Your task to perform on an android device: Search for razer blade on bestbuy, select the first entry, add it to the cart, then select checkout. Image 0: 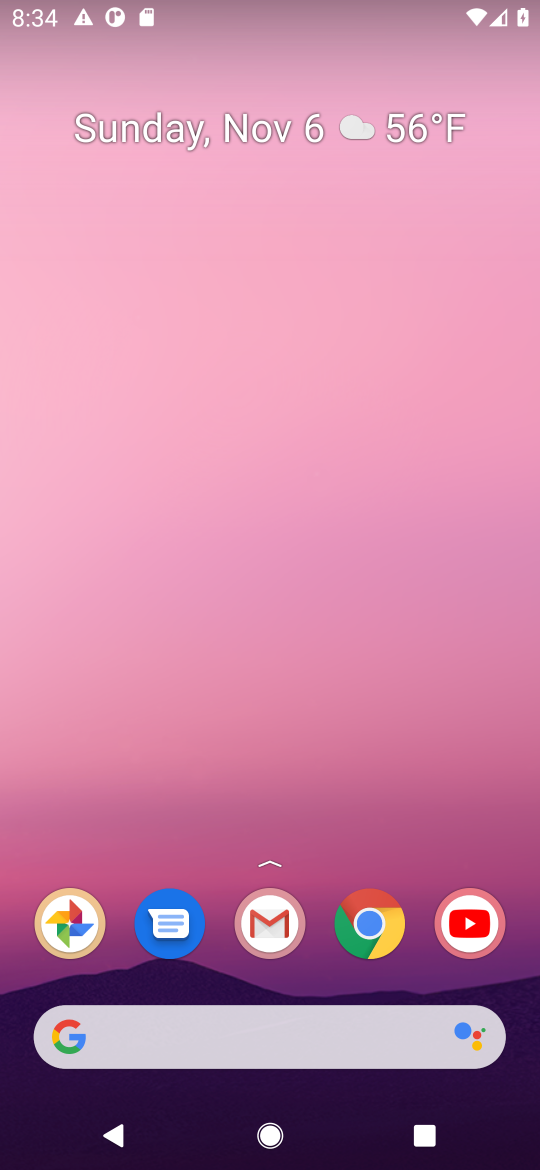
Step 0: click (363, 932)
Your task to perform on an android device: Search for razer blade on bestbuy, select the first entry, add it to the cart, then select checkout. Image 1: 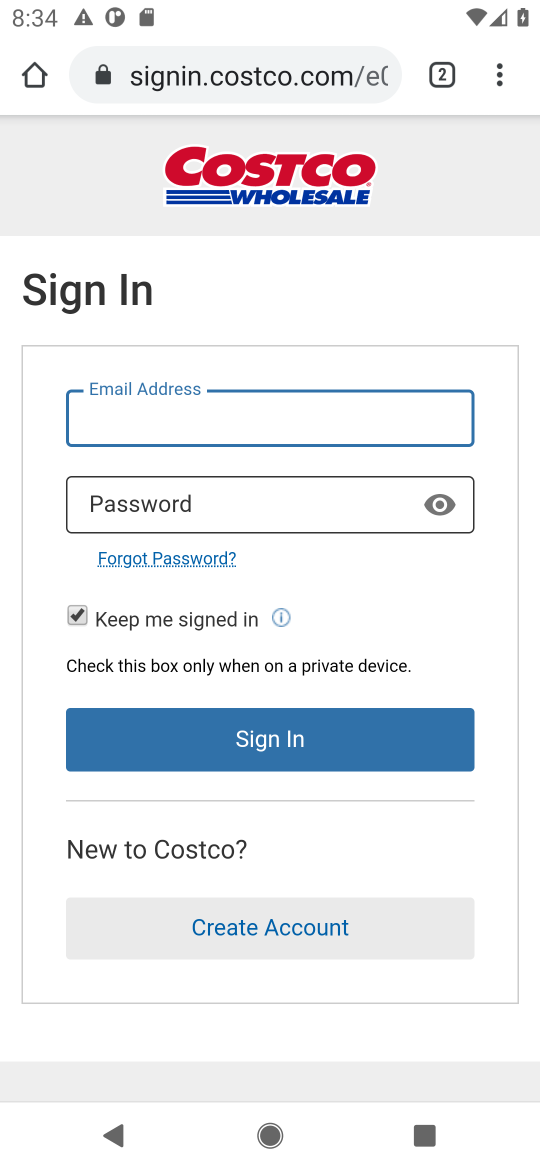
Step 1: click (222, 67)
Your task to perform on an android device: Search for razer blade on bestbuy, select the first entry, add it to the cart, then select checkout. Image 2: 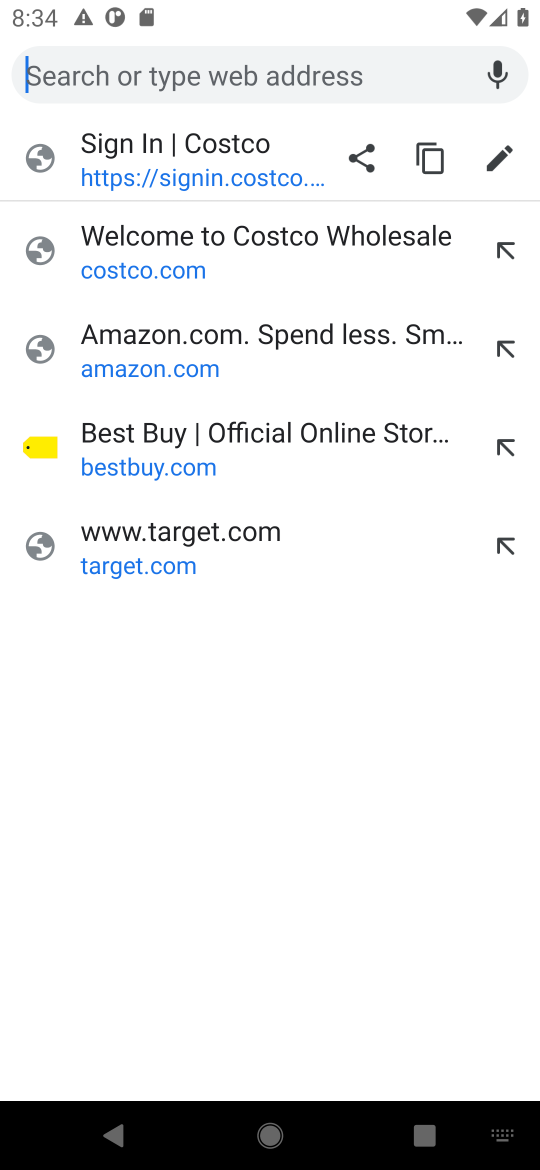
Step 2: click (157, 473)
Your task to perform on an android device: Search for razer blade on bestbuy, select the first entry, add it to the cart, then select checkout. Image 3: 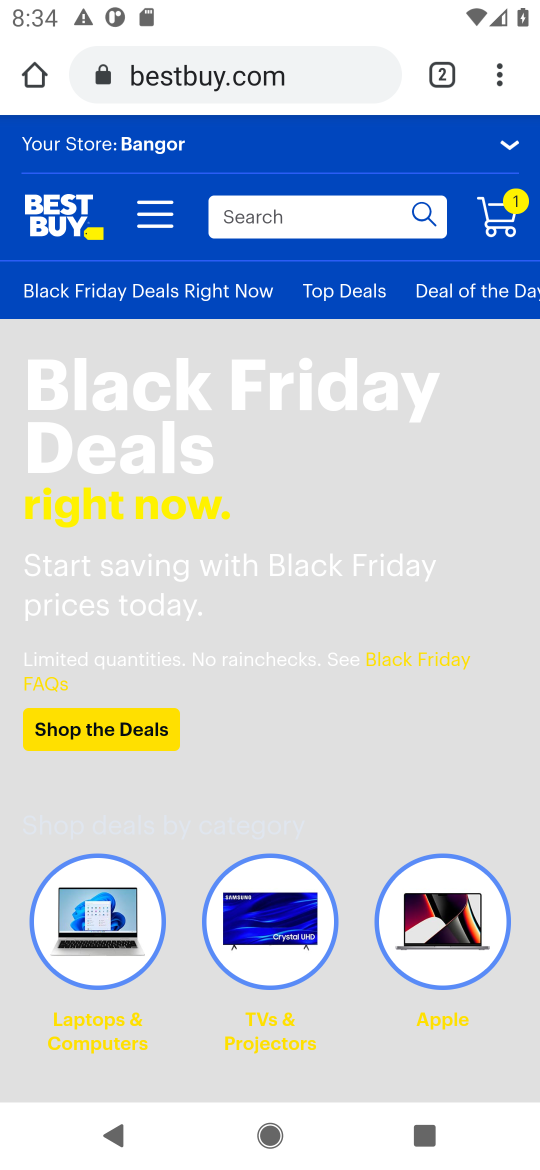
Step 3: click (255, 209)
Your task to perform on an android device: Search for razer blade on bestbuy, select the first entry, add it to the cart, then select checkout. Image 4: 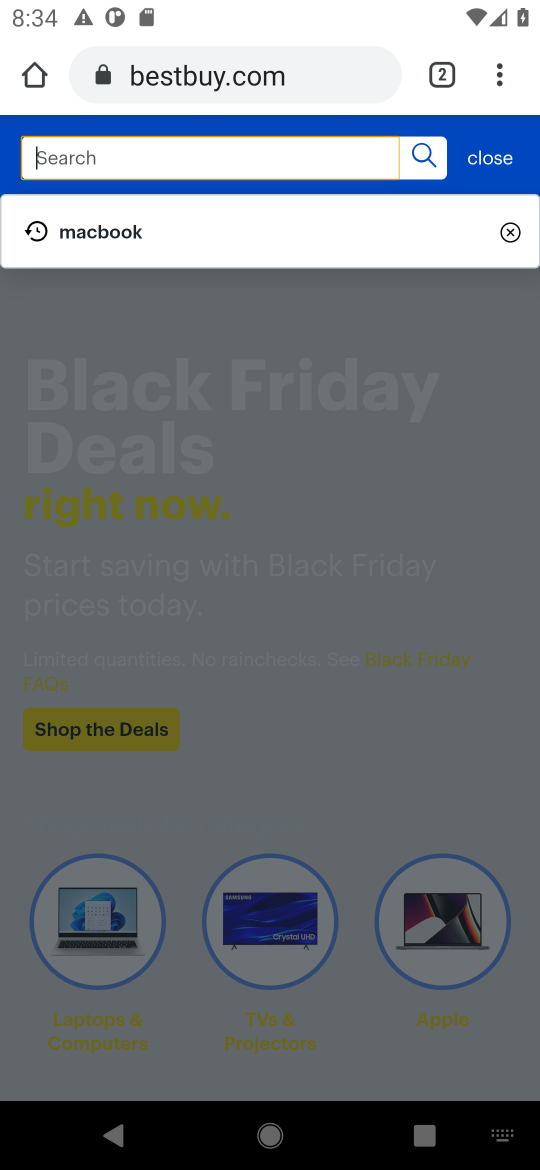
Step 4: type "razer blade"
Your task to perform on an android device: Search for razer blade on bestbuy, select the first entry, add it to the cart, then select checkout. Image 5: 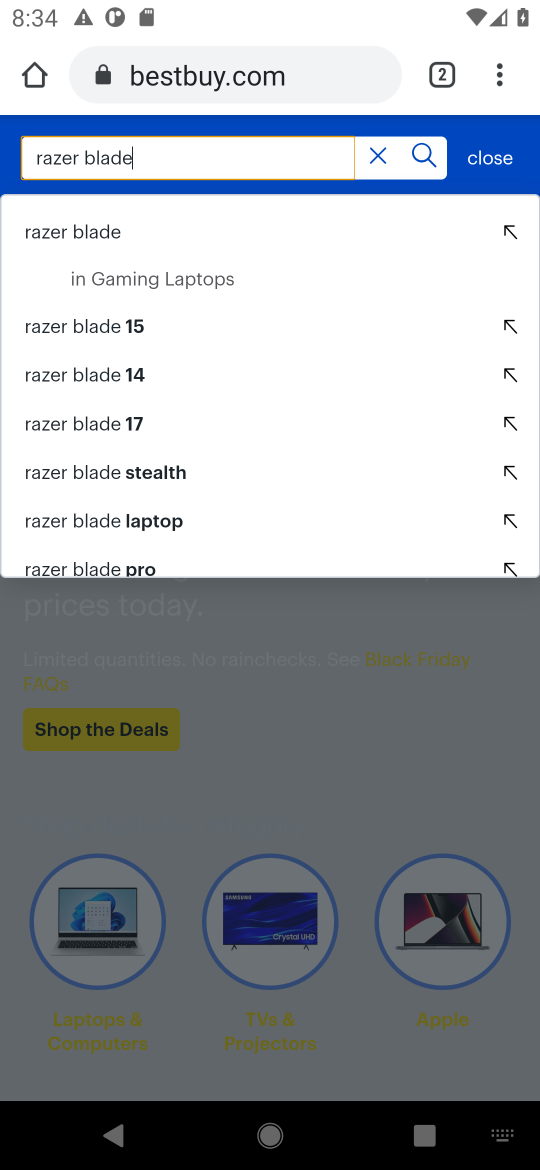
Step 5: click (99, 226)
Your task to perform on an android device: Search for razer blade on bestbuy, select the first entry, add it to the cart, then select checkout. Image 6: 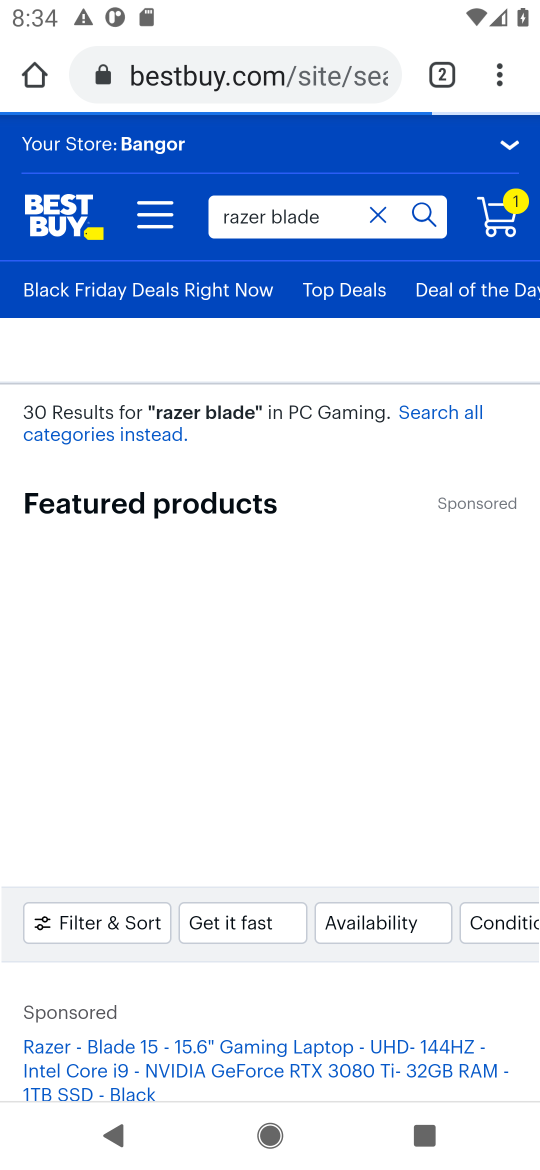
Step 6: drag from (292, 763) to (299, 365)
Your task to perform on an android device: Search for razer blade on bestbuy, select the first entry, add it to the cart, then select checkout. Image 7: 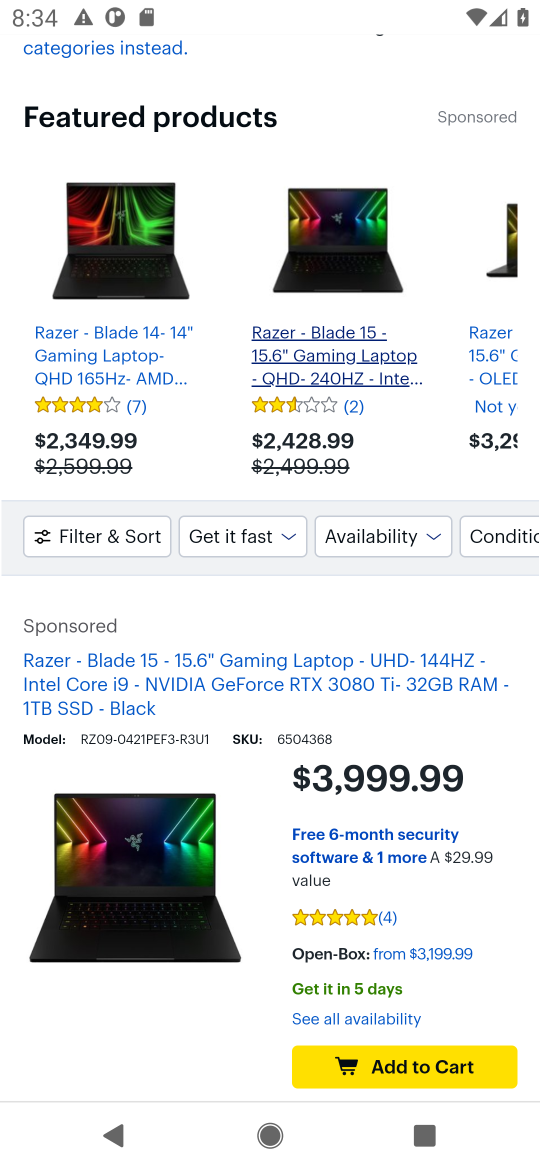
Step 7: click (412, 1065)
Your task to perform on an android device: Search for razer blade on bestbuy, select the first entry, add it to the cart, then select checkout. Image 8: 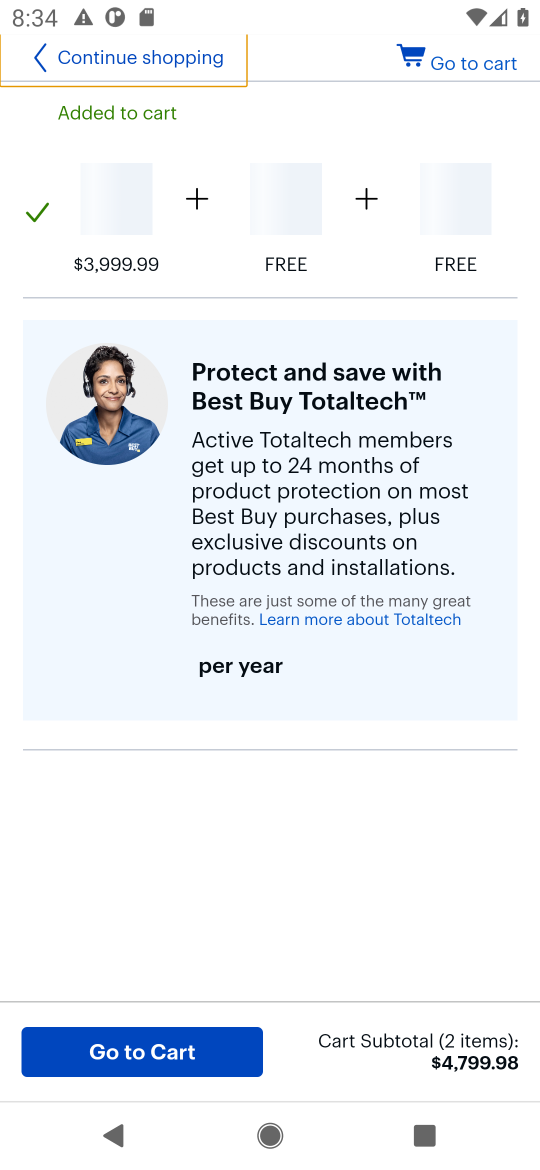
Step 8: click (458, 71)
Your task to perform on an android device: Search for razer blade on bestbuy, select the first entry, add it to the cart, then select checkout. Image 9: 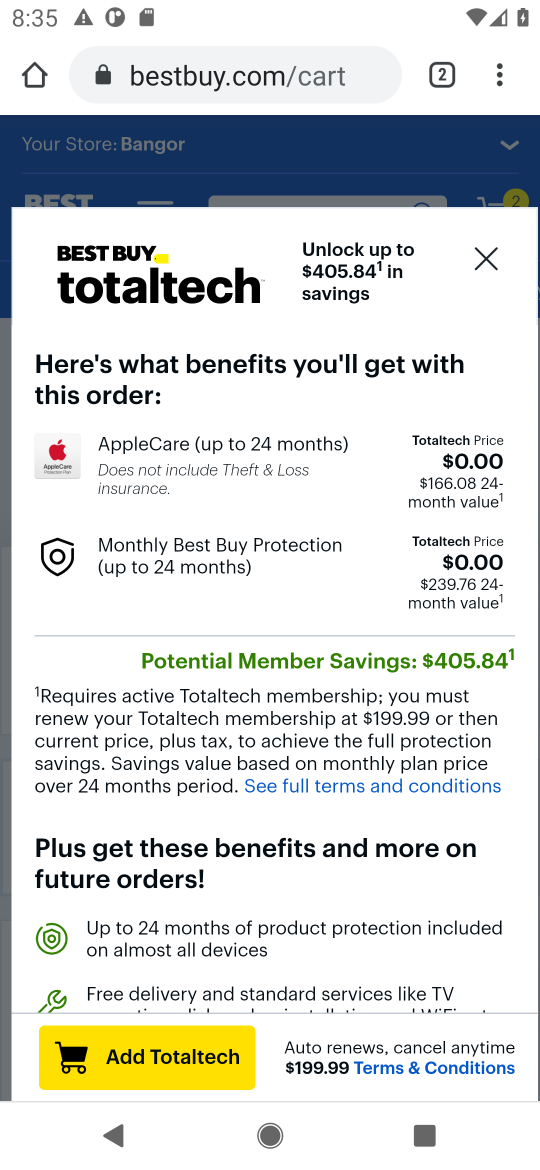
Step 9: click (488, 261)
Your task to perform on an android device: Search for razer blade on bestbuy, select the first entry, add it to the cart, then select checkout. Image 10: 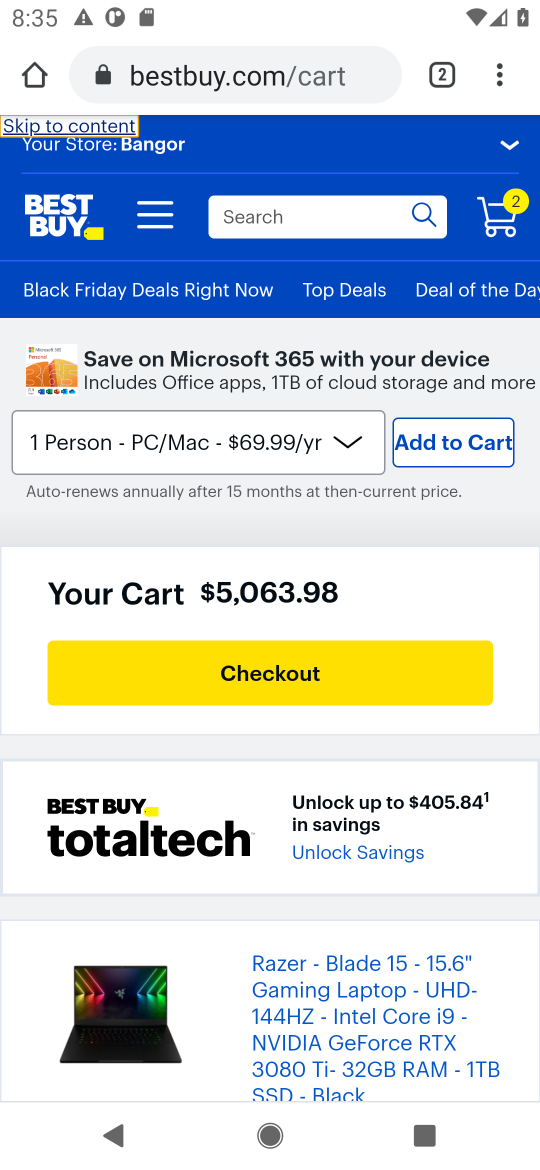
Step 10: click (273, 676)
Your task to perform on an android device: Search for razer blade on bestbuy, select the first entry, add it to the cart, then select checkout. Image 11: 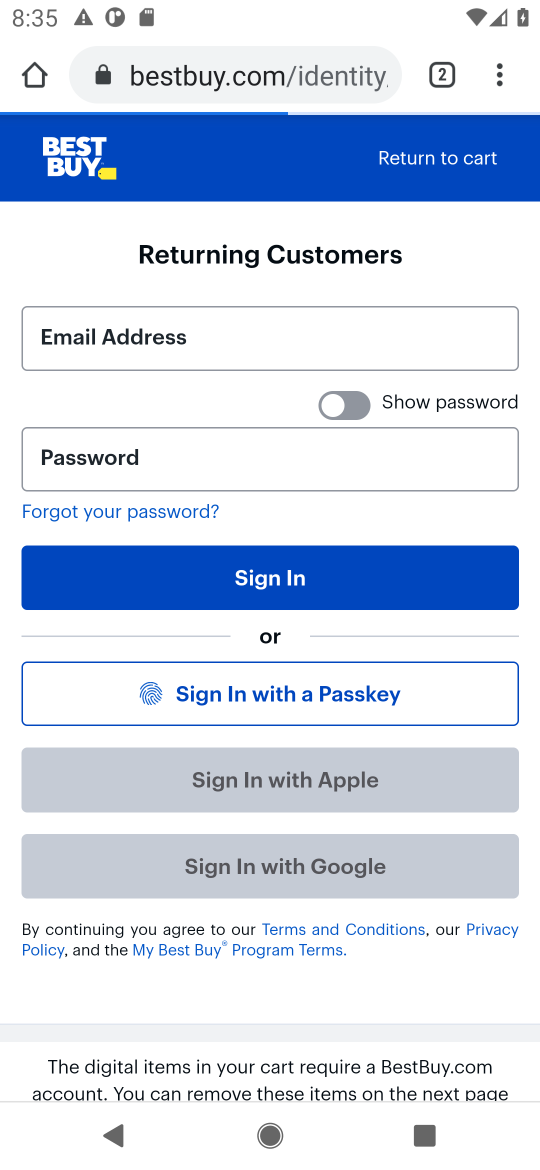
Step 11: task complete